Your task to perform on an android device: turn off sleep mode Image 0: 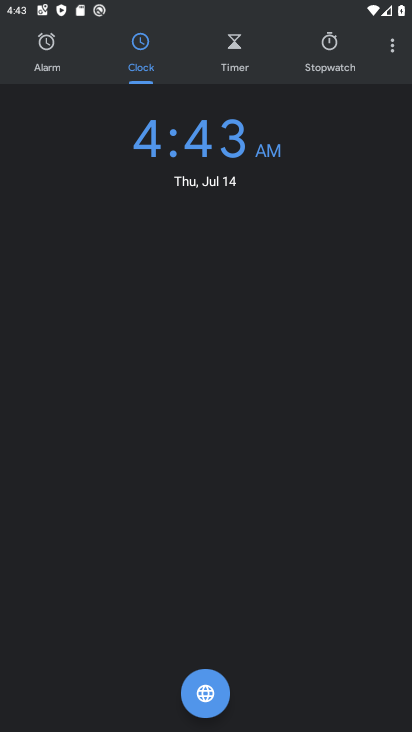
Step 0: press home button
Your task to perform on an android device: turn off sleep mode Image 1: 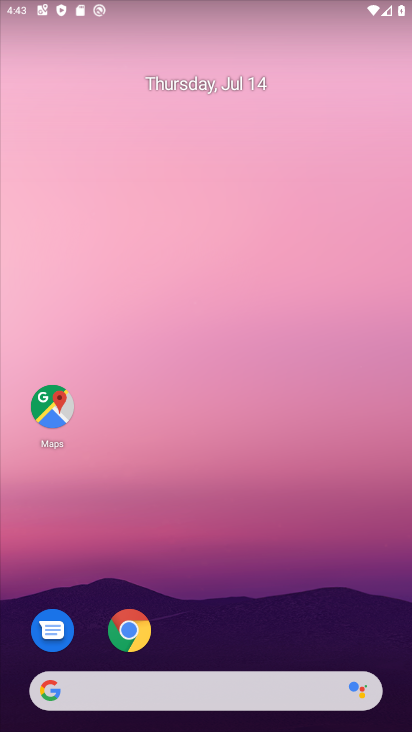
Step 1: drag from (256, 587) to (254, 112)
Your task to perform on an android device: turn off sleep mode Image 2: 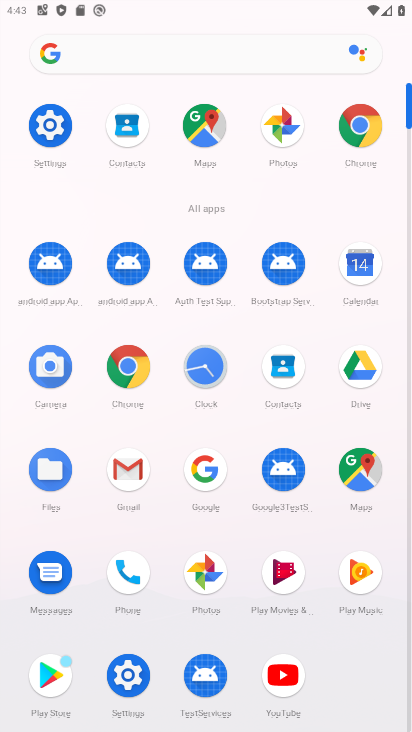
Step 2: click (65, 139)
Your task to perform on an android device: turn off sleep mode Image 3: 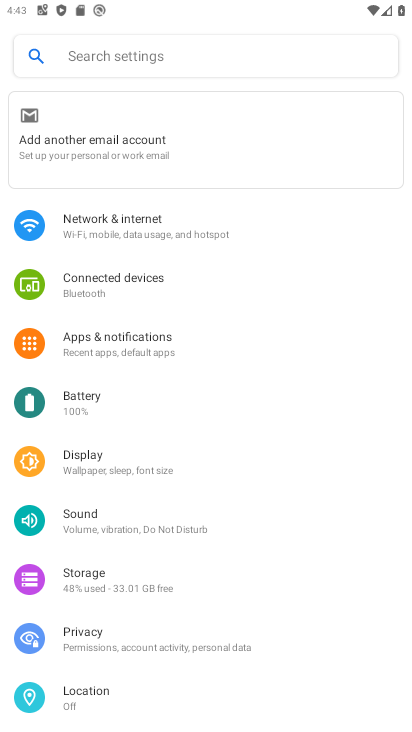
Step 3: task complete